Your task to perform on an android device: What is the recent news? Image 0: 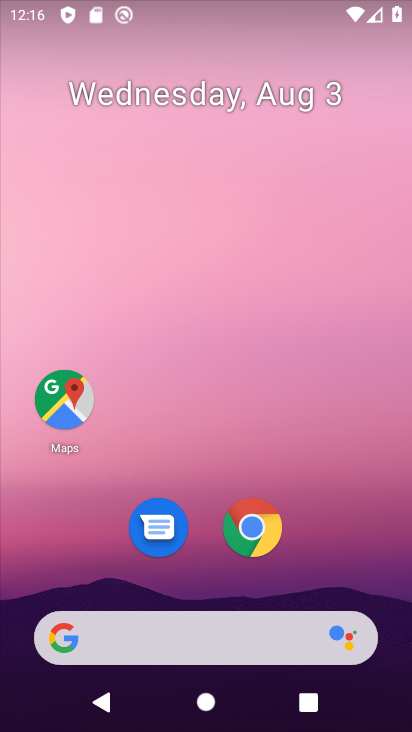
Step 0: drag from (200, 592) to (214, 13)
Your task to perform on an android device: What is the recent news? Image 1: 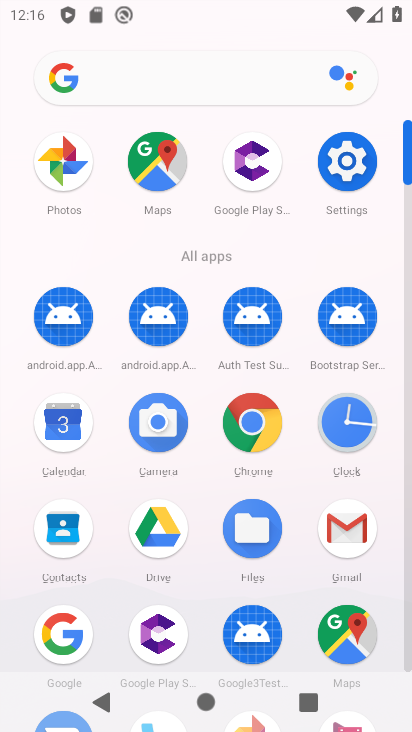
Step 1: click (169, 78)
Your task to perform on an android device: What is the recent news? Image 2: 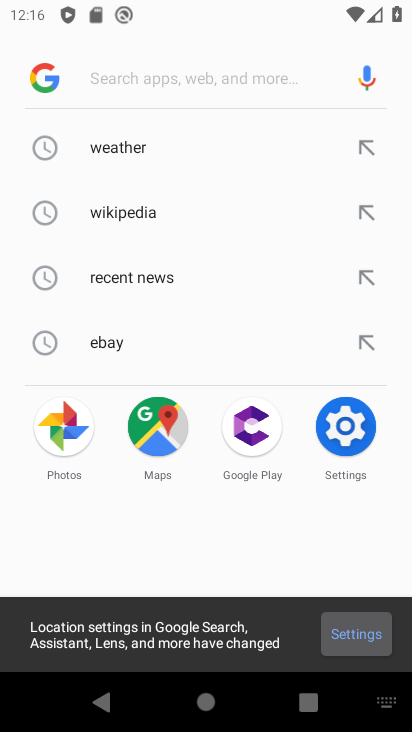
Step 2: click (158, 276)
Your task to perform on an android device: What is the recent news? Image 3: 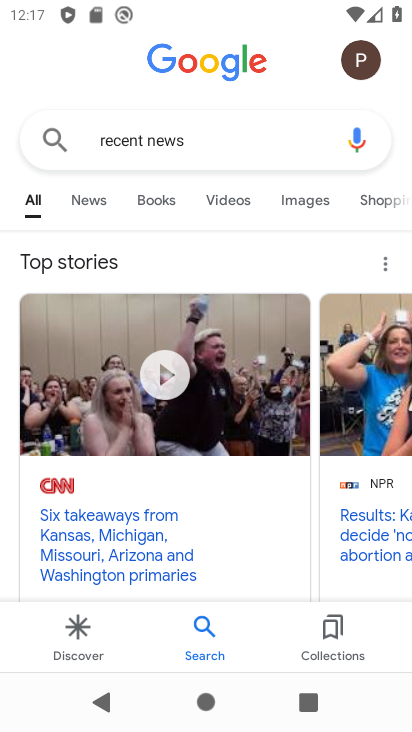
Step 3: task complete